Your task to perform on an android device: turn on location history Image 0: 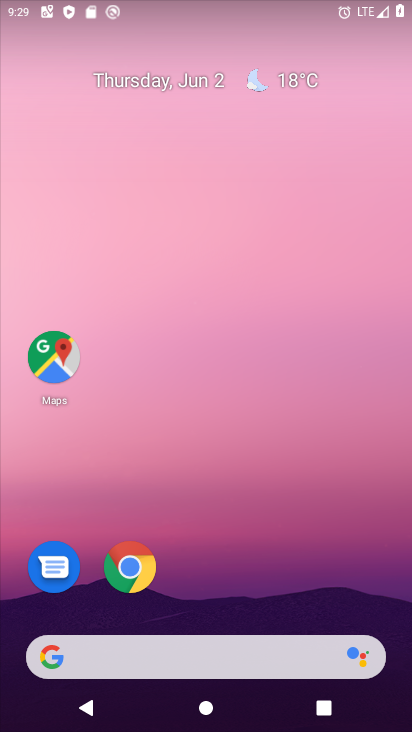
Step 0: press home button
Your task to perform on an android device: turn on location history Image 1: 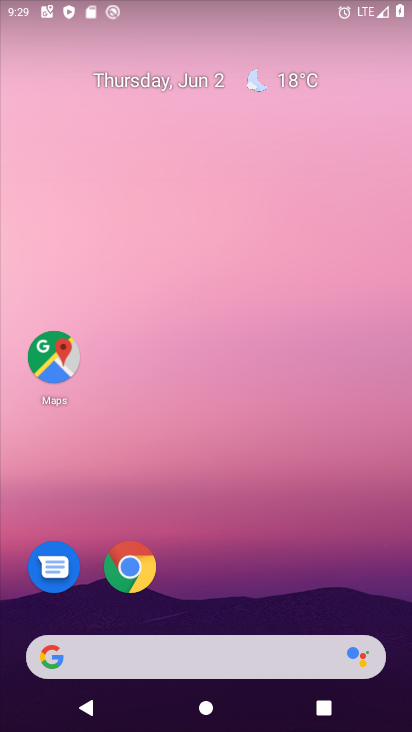
Step 1: drag from (218, 621) to (229, 57)
Your task to perform on an android device: turn on location history Image 2: 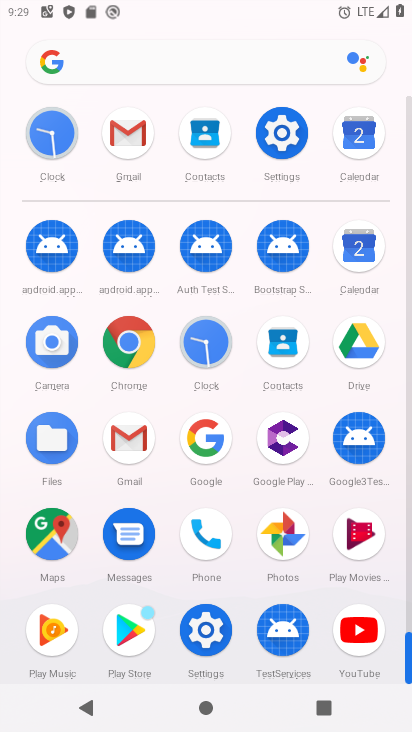
Step 2: click (277, 134)
Your task to perform on an android device: turn on location history Image 3: 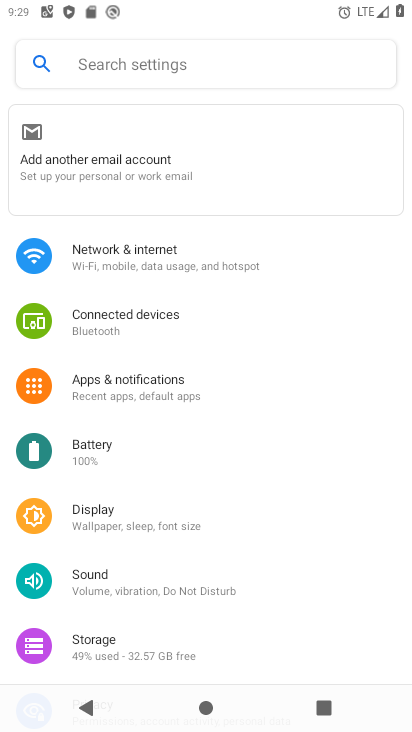
Step 3: click (192, 630)
Your task to perform on an android device: turn on location history Image 4: 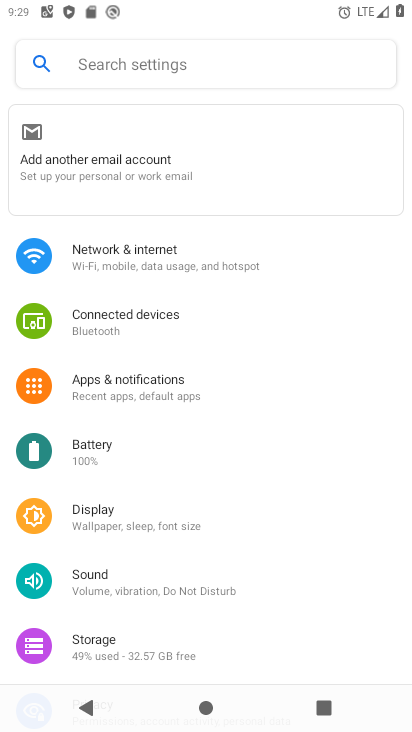
Step 4: drag from (197, 416) to (203, 57)
Your task to perform on an android device: turn on location history Image 5: 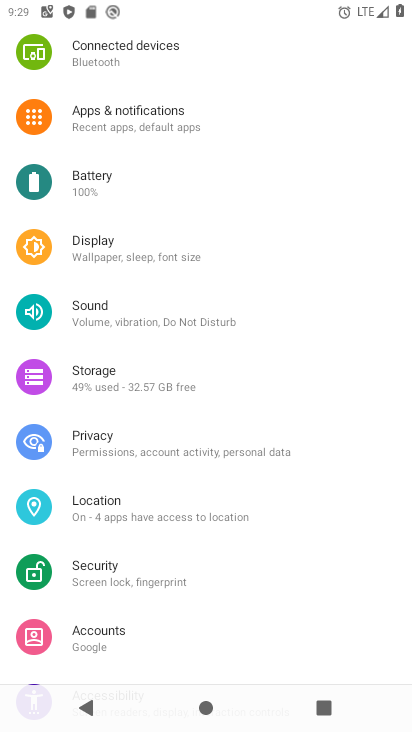
Step 5: click (140, 507)
Your task to perform on an android device: turn on location history Image 6: 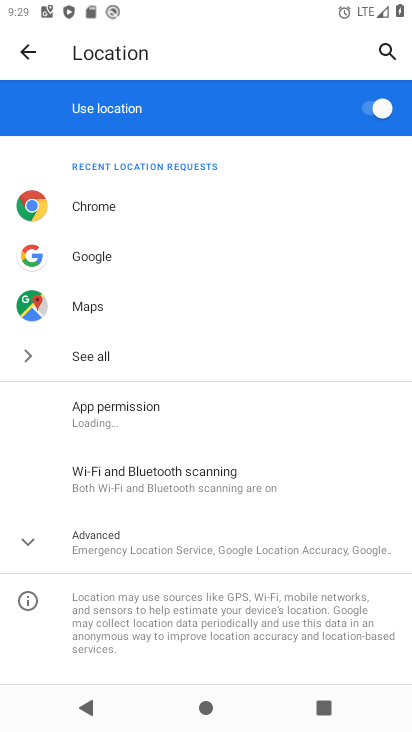
Step 6: click (71, 537)
Your task to perform on an android device: turn on location history Image 7: 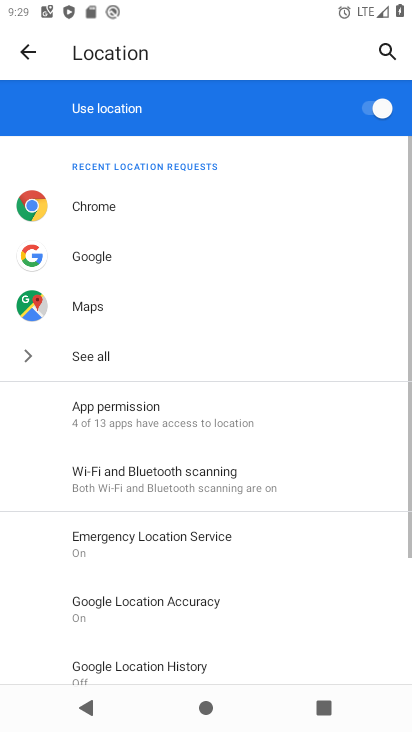
Step 7: click (167, 663)
Your task to perform on an android device: turn on location history Image 8: 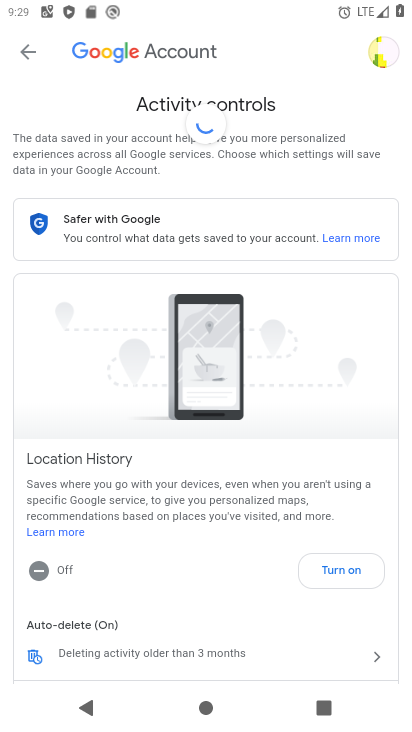
Step 8: click (356, 566)
Your task to perform on an android device: turn on location history Image 9: 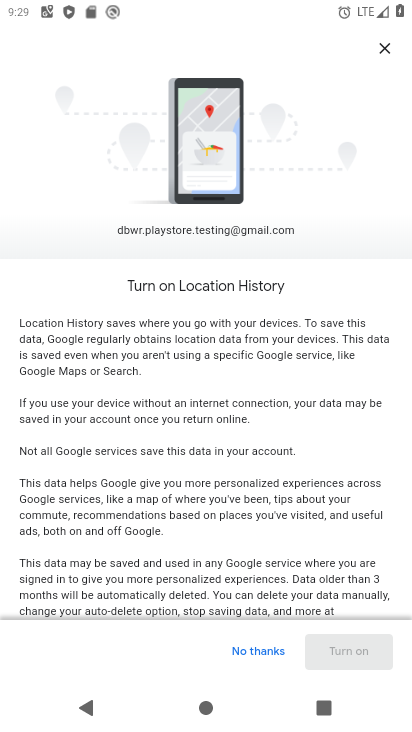
Step 9: drag from (340, 591) to (334, 176)
Your task to perform on an android device: turn on location history Image 10: 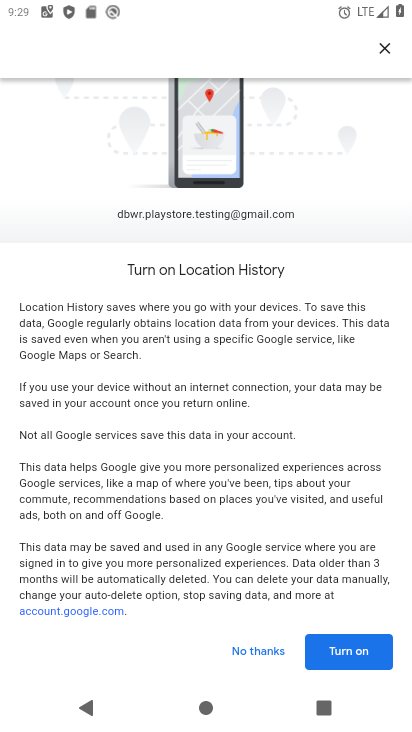
Step 10: click (337, 637)
Your task to perform on an android device: turn on location history Image 11: 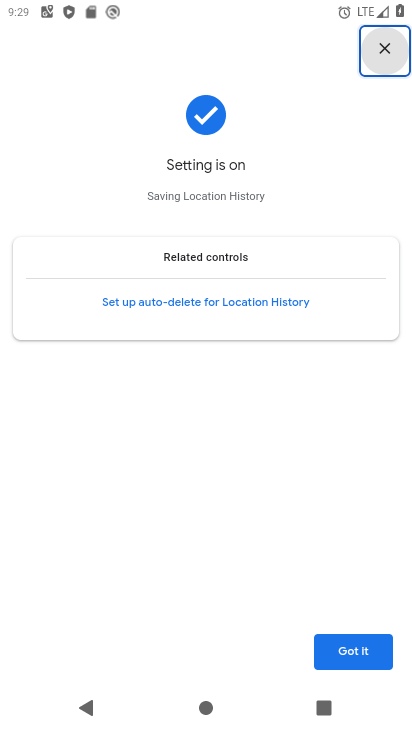
Step 11: click (344, 645)
Your task to perform on an android device: turn on location history Image 12: 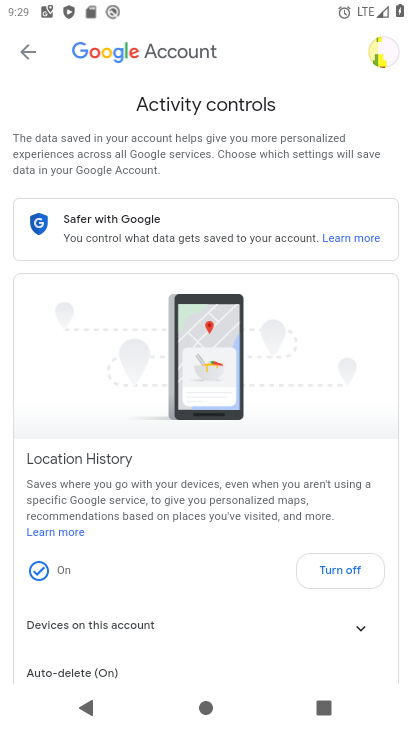
Step 12: task complete